Your task to perform on an android device: open a new tab in the chrome app Image 0: 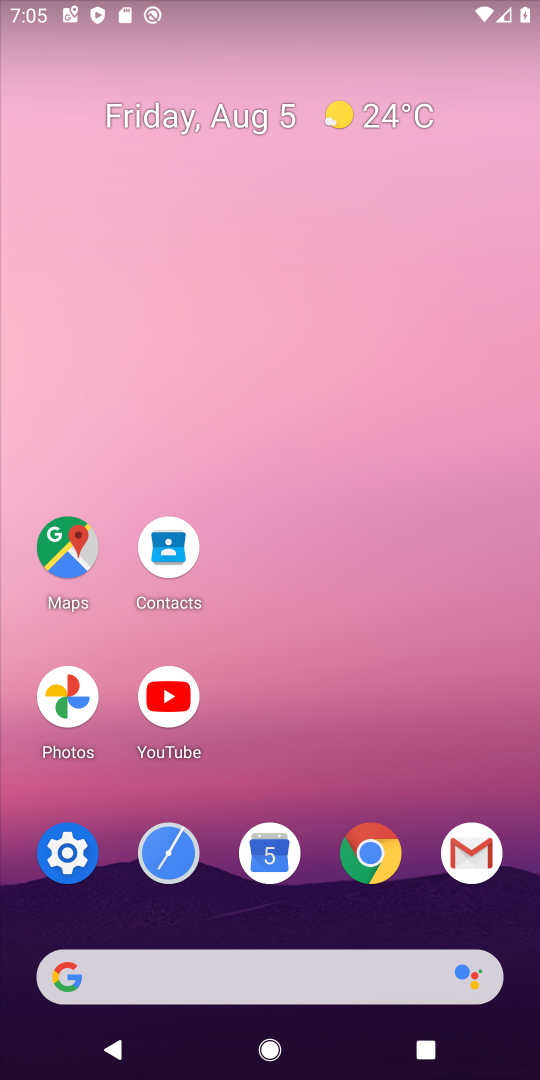
Step 0: click (366, 855)
Your task to perform on an android device: open a new tab in the chrome app Image 1: 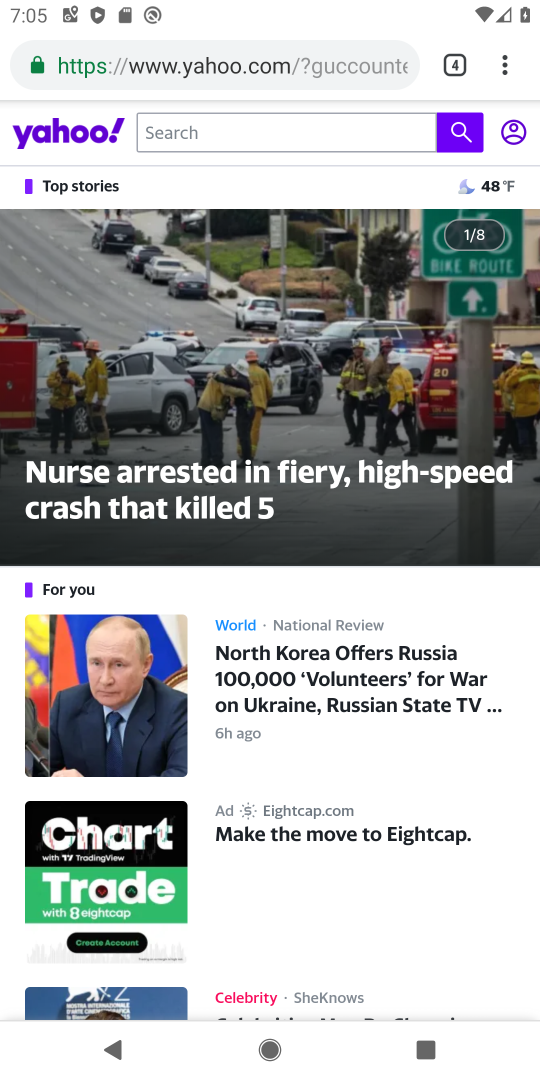
Step 1: click (502, 63)
Your task to perform on an android device: open a new tab in the chrome app Image 2: 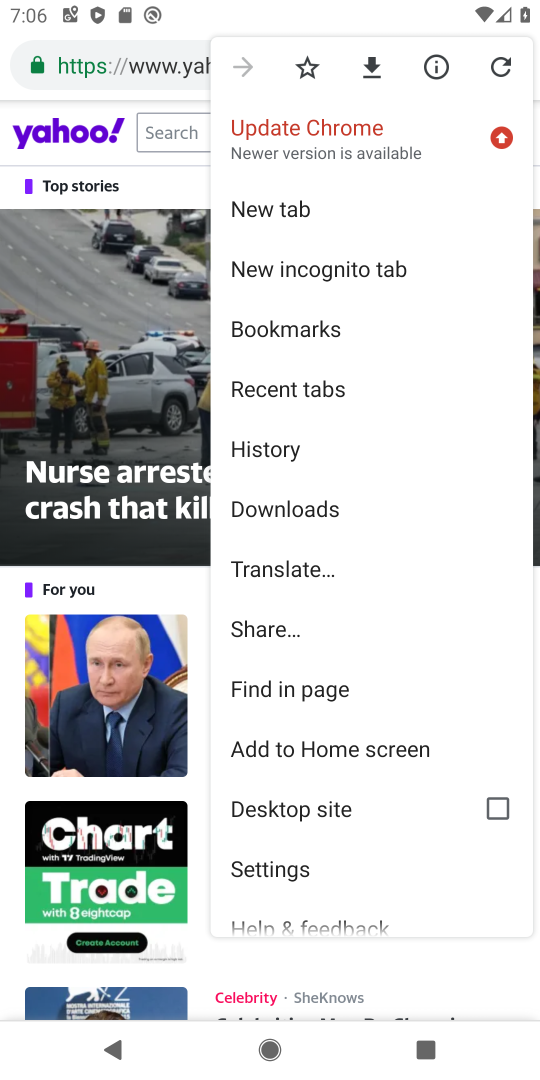
Step 2: click (275, 203)
Your task to perform on an android device: open a new tab in the chrome app Image 3: 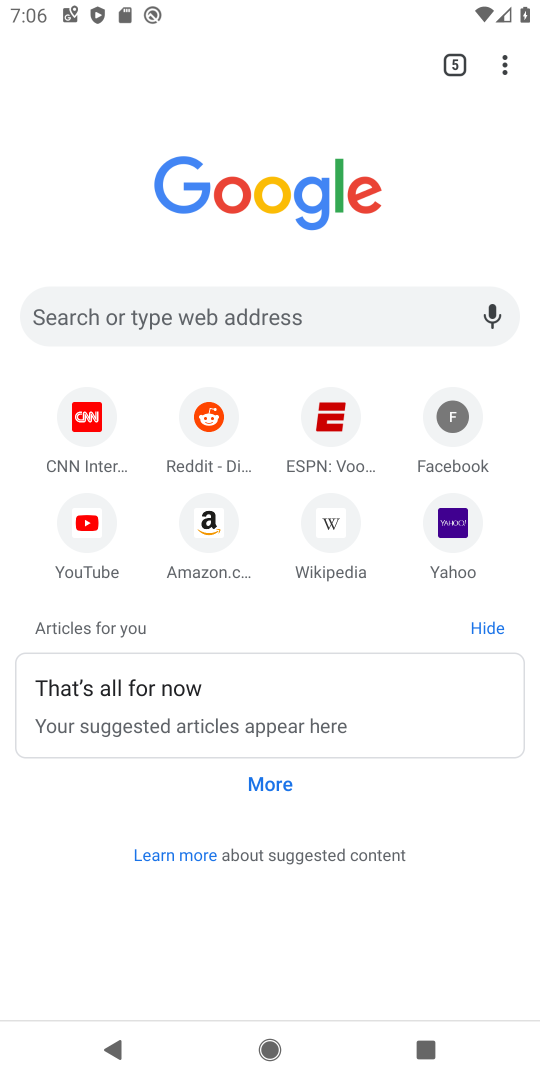
Step 3: task complete